Your task to perform on an android device: turn on data saver in the chrome app Image 0: 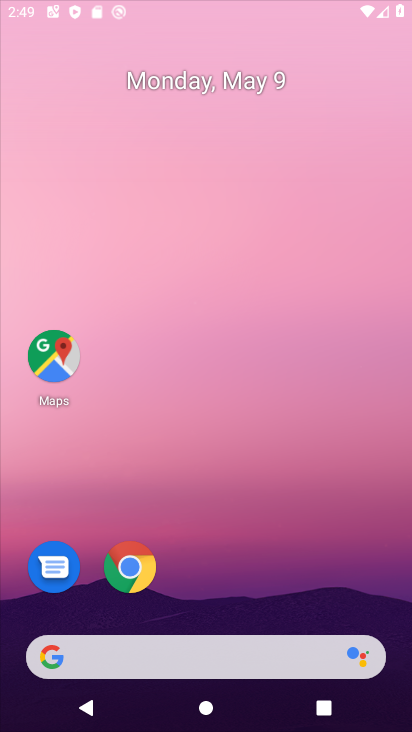
Step 0: click (327, 121)
Your task to perform on an android device: turn on data saver in the chrome app Image 1: 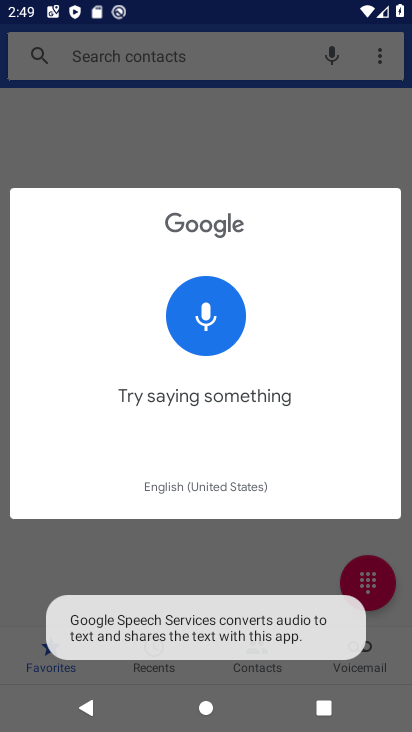
Step 1: press home button
Your task to perform on an android device: turn on data saver in the chrome app Image 2: 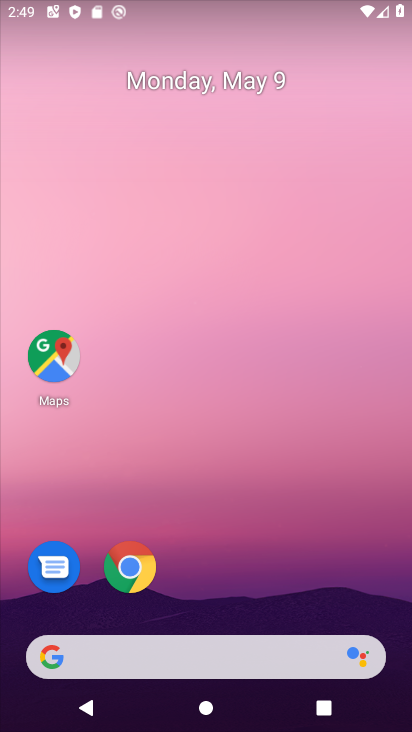
Step 2: click (140, 566)
Your task to perform on an android device: turn on data saver in the chrome app Image 3: 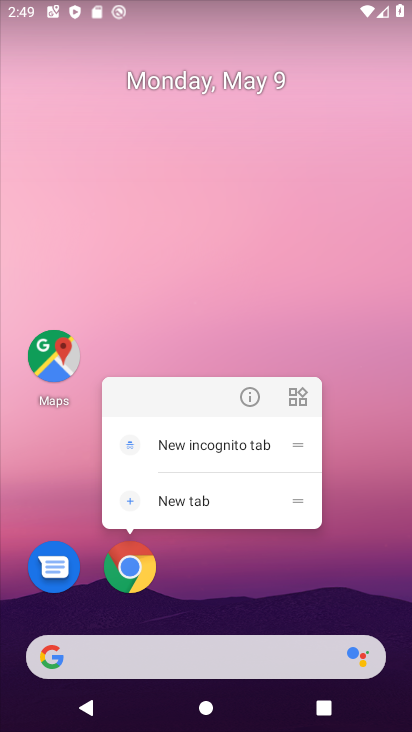
Step 3: click (140, 580)
Your task to perform on an android device: turn on data saver in the chrome app Image 4: 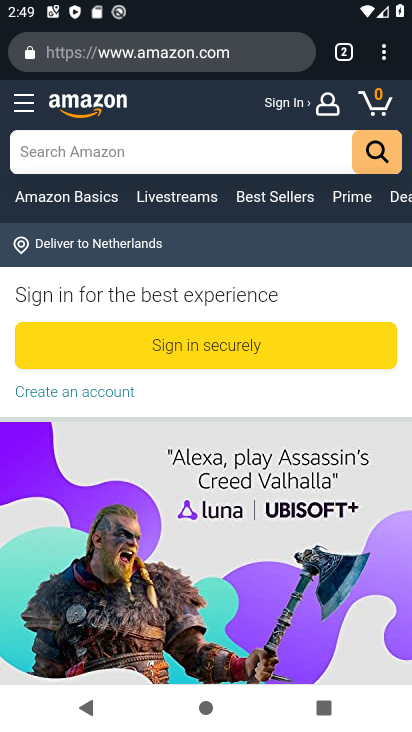
Step 4: click (390, 59)
Your task to perform on an android device: turn on data saver in the chrome app Image 5: 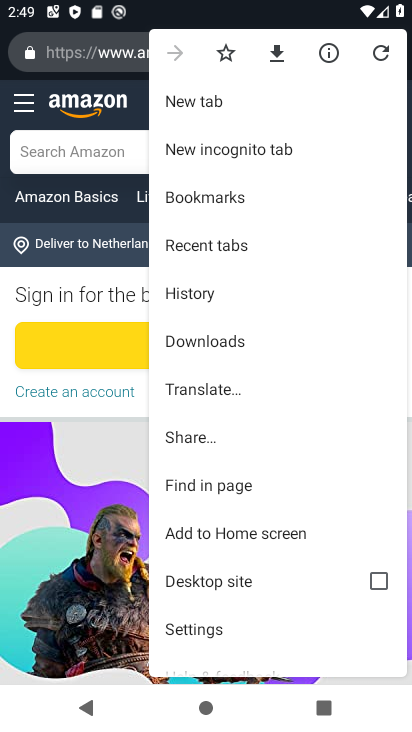
Step 5: click (205, 627)
Your task to perform on an android device: turn on data saver in the chrome app Image 6: 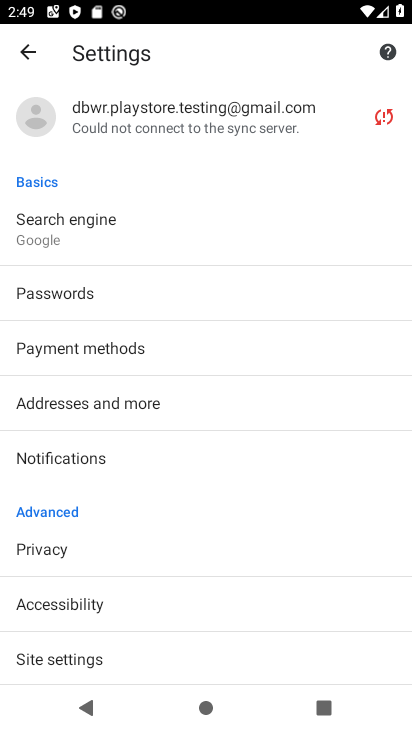
Step 6: drag from (181, 592) to (237, 332)
Your task to perform on an android device: turn on data saver in the chrome app Image 7: 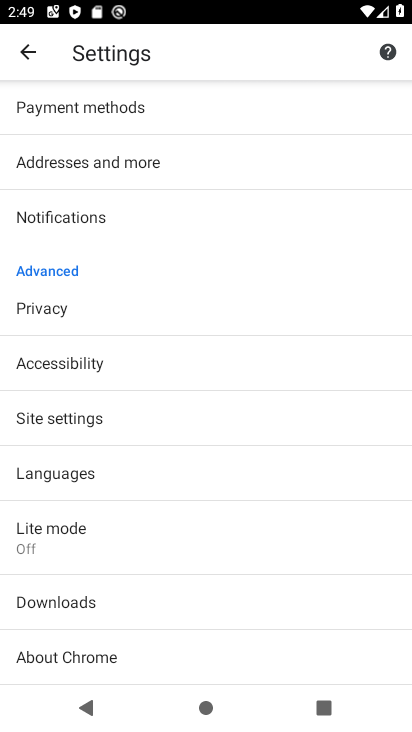
Step 7: click (44, 541)
Your task to perform on an android device: turn on data saver in the chrome app Image 8: 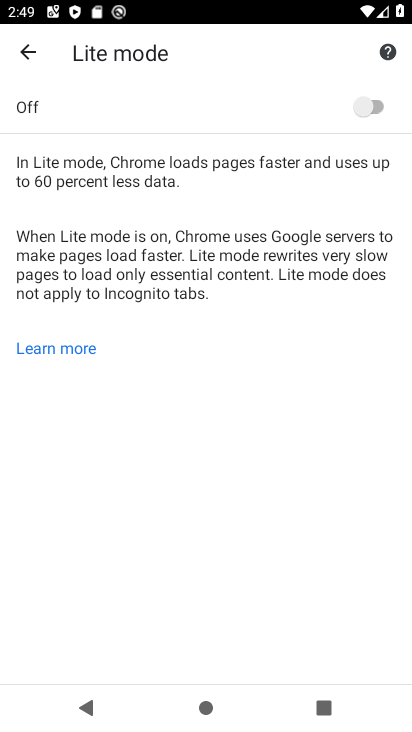
Step 8: click (377, 111)
Your task to perform on an android device: turn on data saver in the chrome app Image 9: 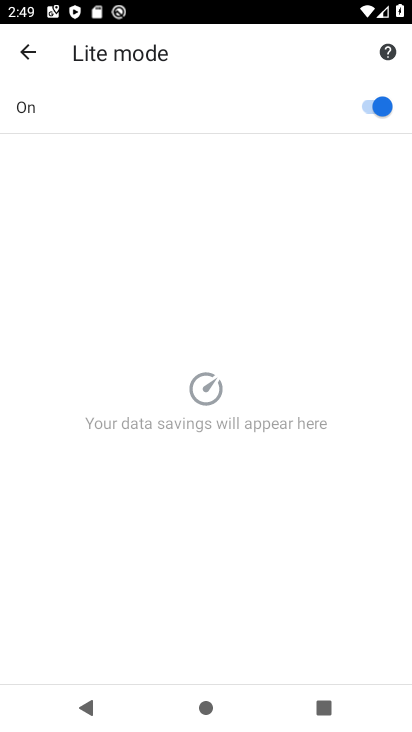
Step 9: task complete